Your task to perform on an android device: Do I have any events tomorrow? Image 0: 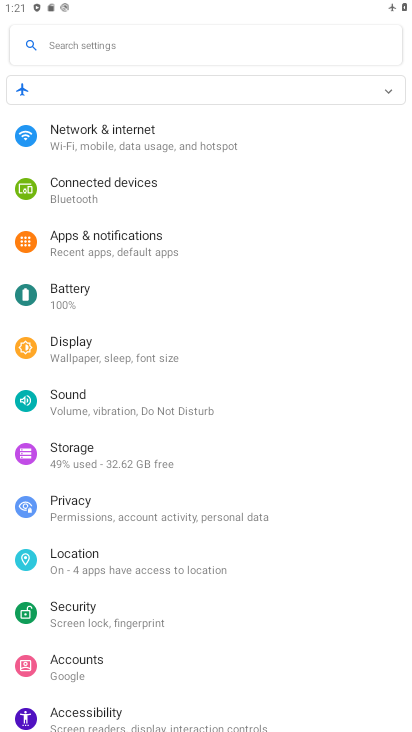
Step 0: press home button
Your task to perform on an android device: Do I have any events tomorrow? Image 1: 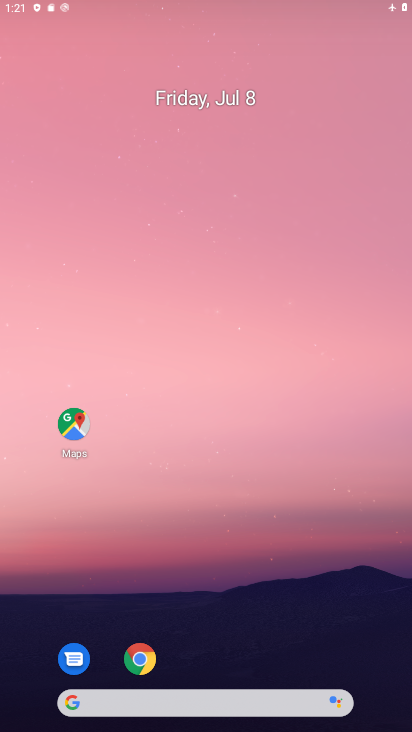
Step 1: drag from (322, 605) to (255, 75)
Your task to perform on an android device: Do I have any events tomorrow? Image 2: 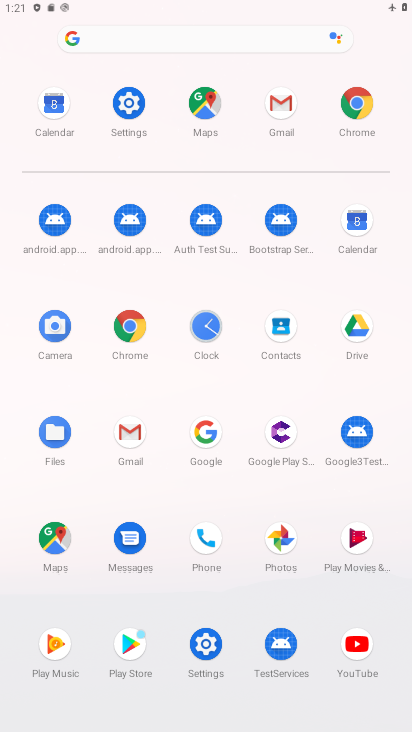
Step 2: click (358, 237)
Your task to perform on an android device: Do I have any events tomorrow? Image 3: 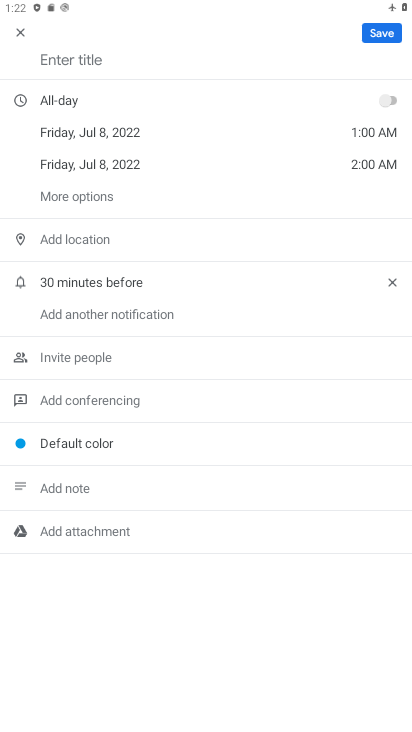
Step 3: task complete